Your task to perform on an android device: Toggle the flashlight Image 0: 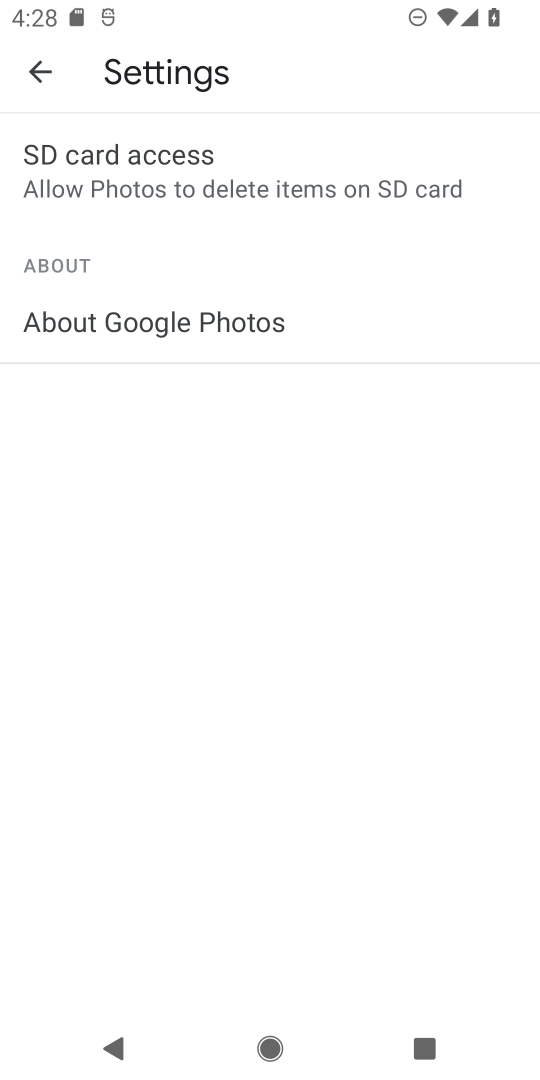
Step 0: press home button
Your task to perform on an android device: Toggle the flashlight Image 1: 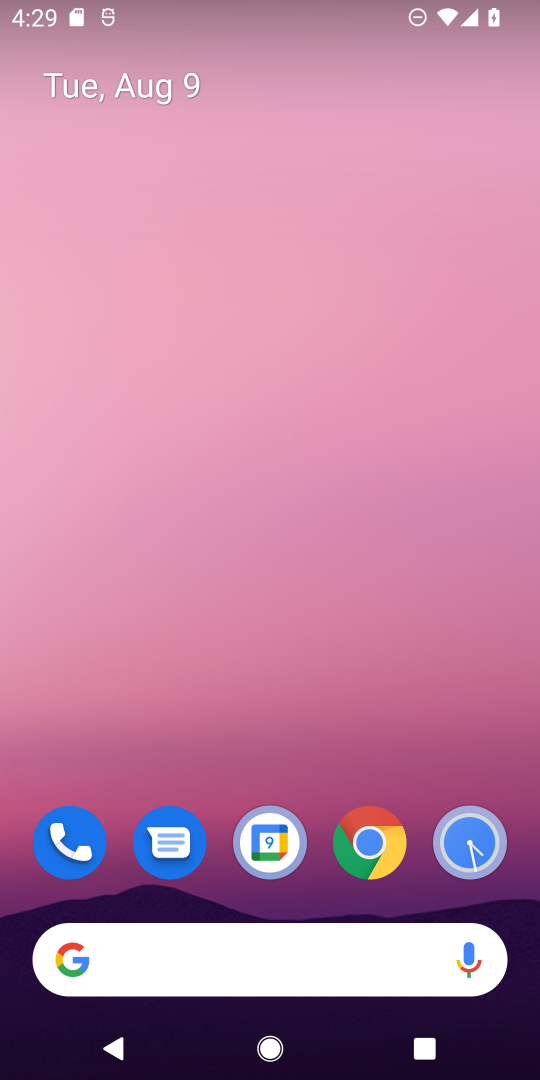
Step 1: task complete